Your task to perform on an android device: Open Youtube and go to the subscriptions tab Image 0: 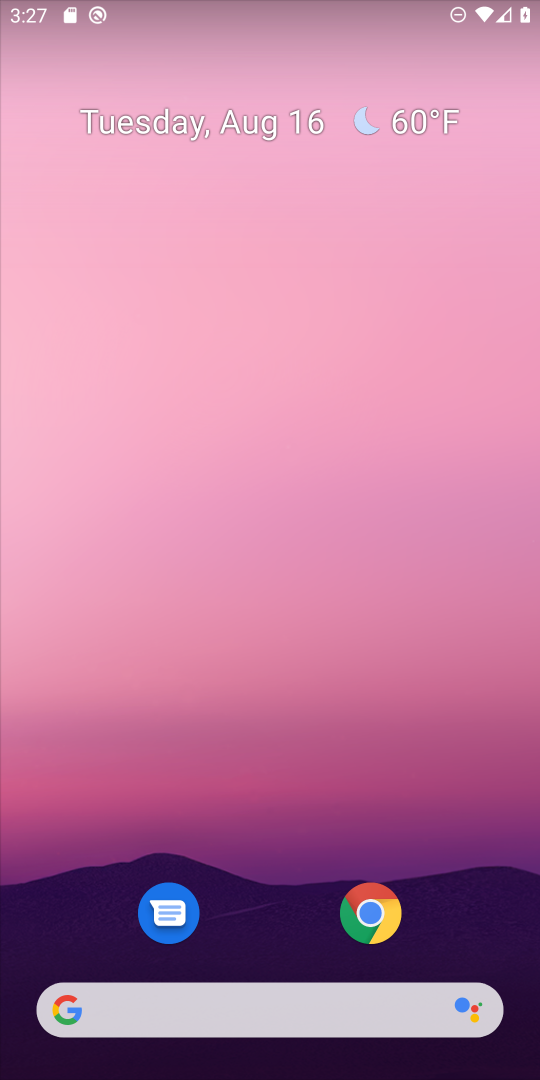
Step 0: drag from (499, 940) to (455, 198)
Your task to perform on an android device: Open Youtube and go to the subscriptions tab Image 1: 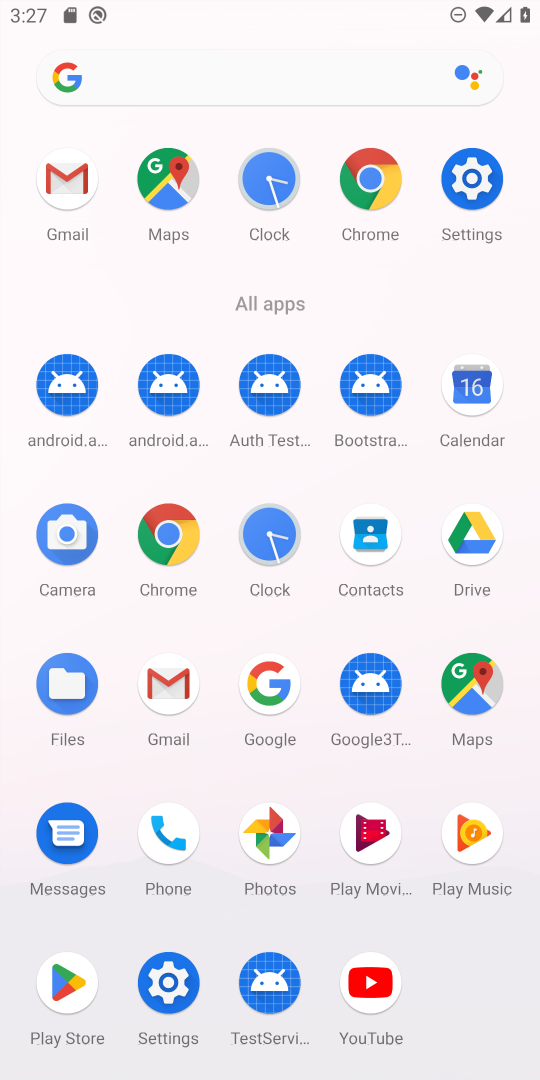
Step 1: click (368, 978)
Your task to perform on an android device: Open Youtube and go to the subscriptions tab Image 2: 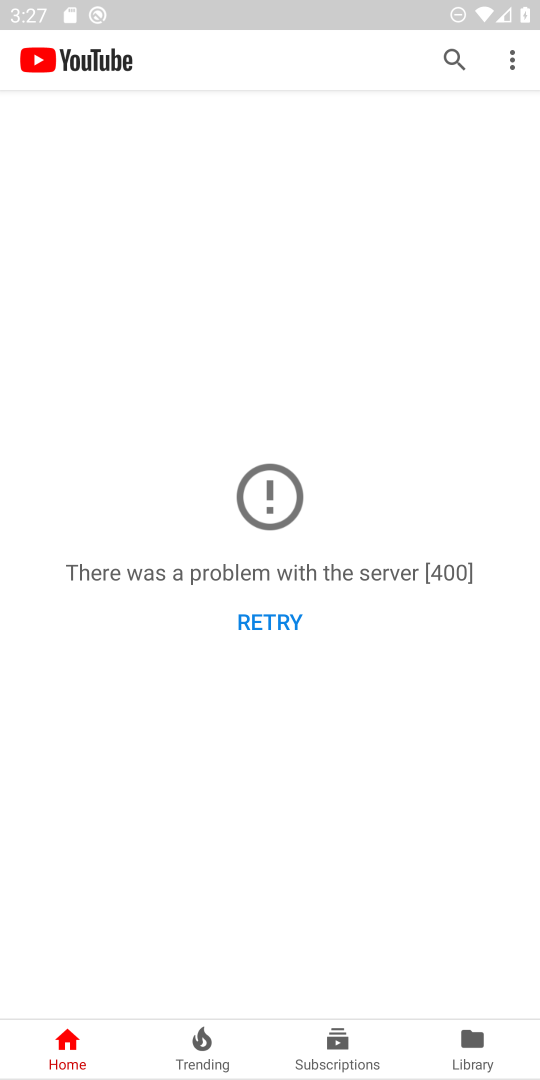
Step 2: click (340, 1045)
Your task to perform on an android device: Open Youtube and go to the subscriptions tab Image 3: 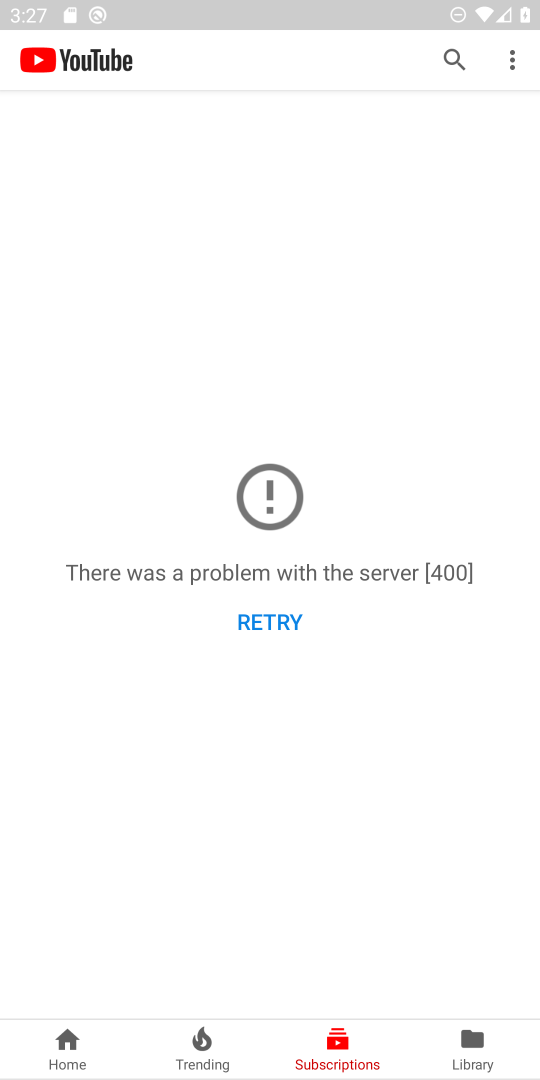
Step 3: click (263, 610)
Your task to perform on an android device: Open Youtube and go to the subscriptions tab Image 4: 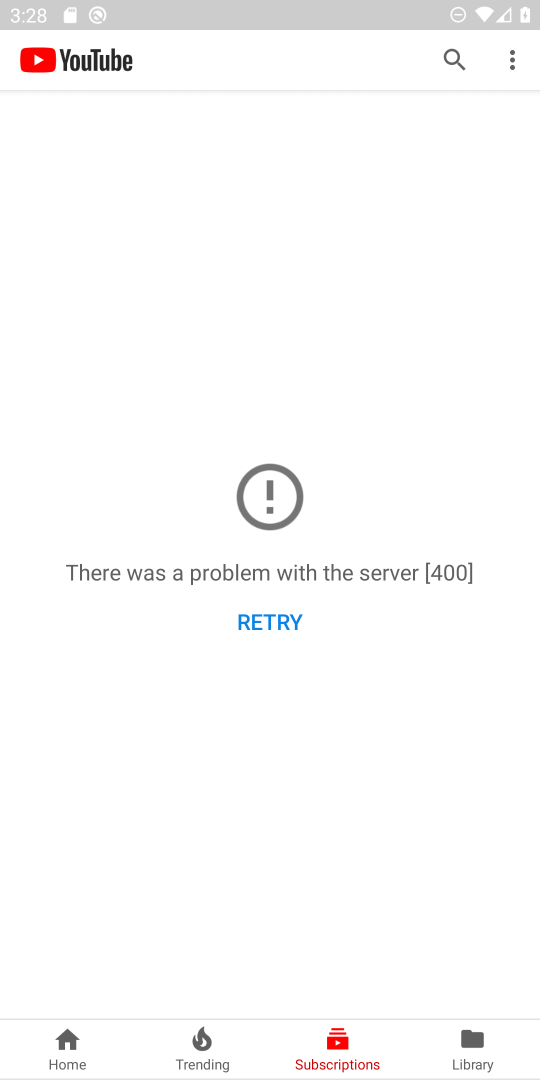
Step 4: task complete